Your task to perform on an android device: What's on my calendar today? Image 0: 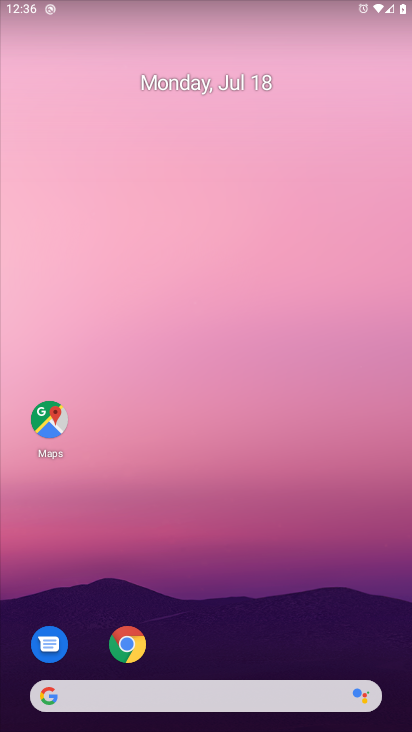
Step 0: press home button
Your task to perform on an android device: What's on my calendar today? Image 1: 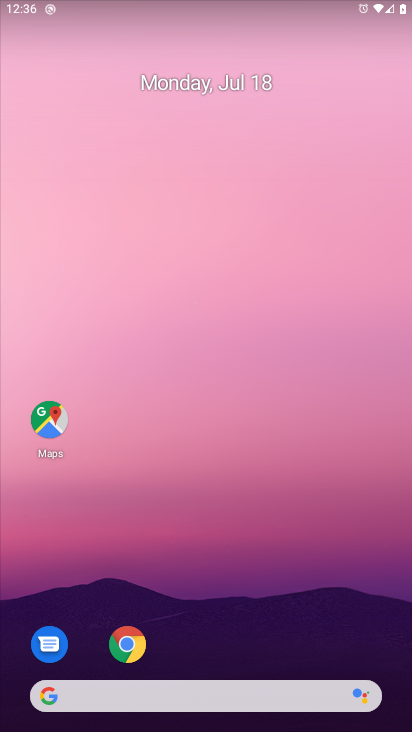
Step 1: drag from (279, 626) to (298, 206)
Your task to perform on an android device: What's on my calendar today? Image 2: 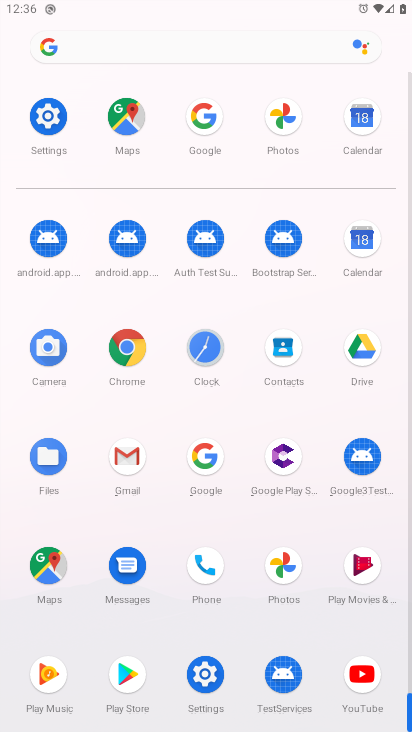
Step 2: click (362, 237)
Your task to perform on an android device: What's on my calendar today? Image 3: 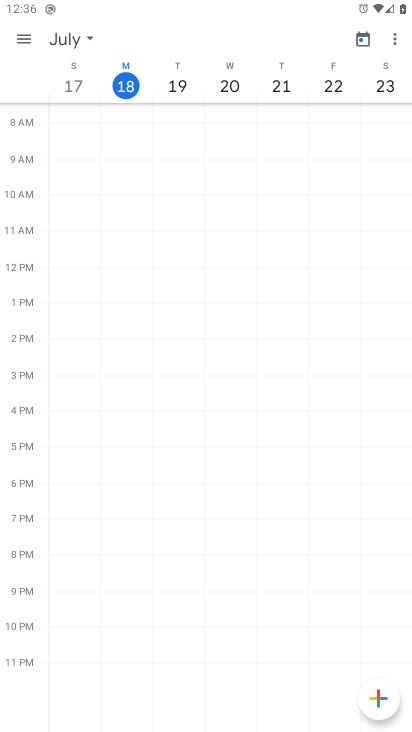
Step 3: click (126, 82)
Your task to perform on an android device: What's on my calendar today? Image 4: 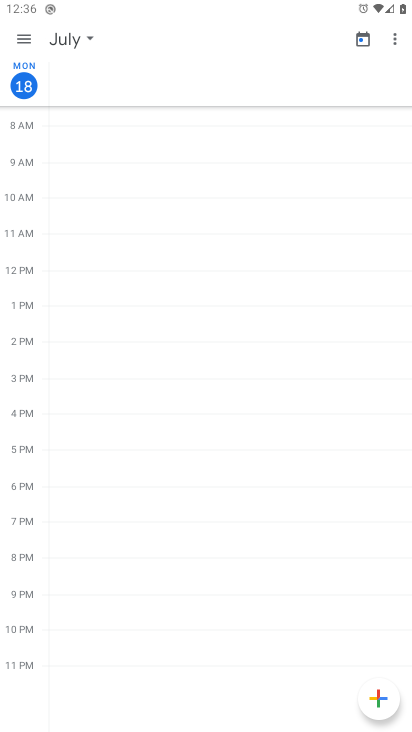
Step 4: task complete